Your task to perform on an android device: Search for "duracell triple a" on newegg.com, select the first entry, and add it to the cart. Image 0: 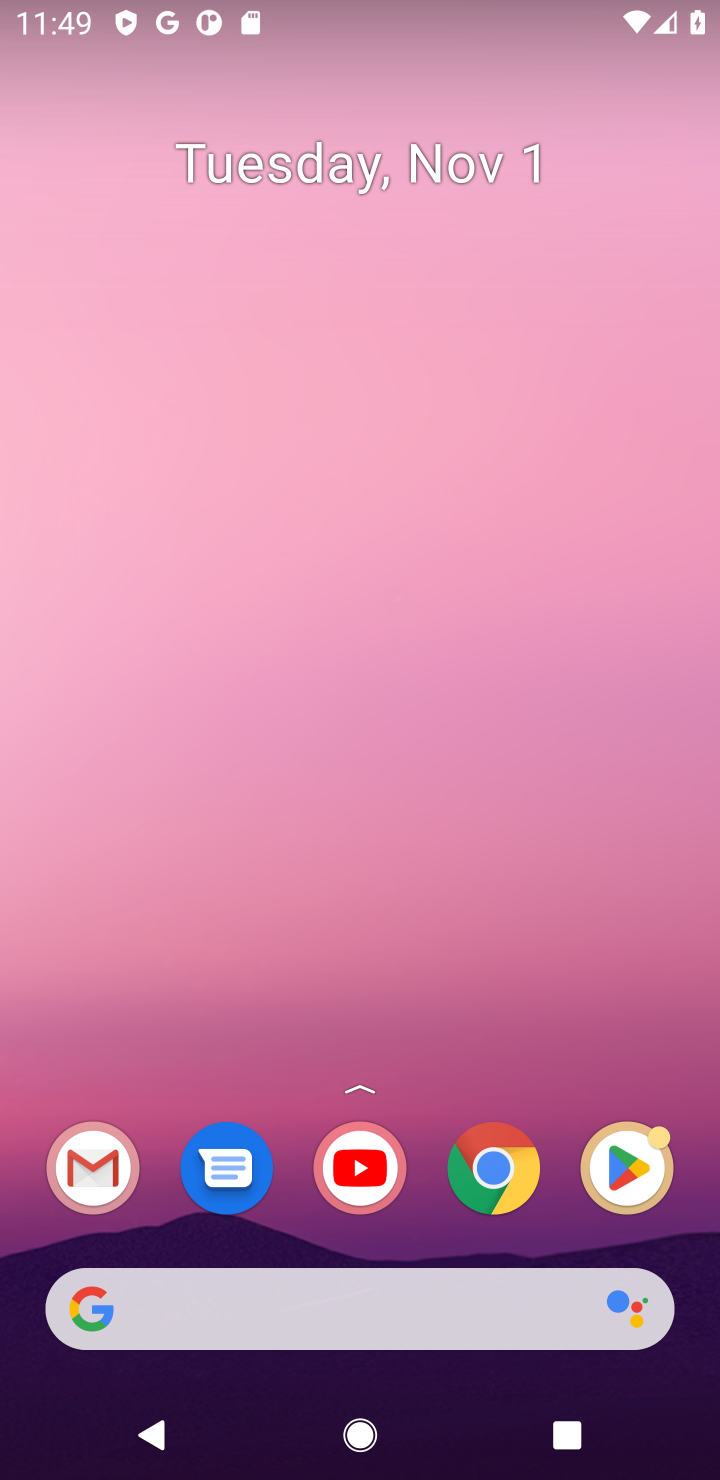
Step 0: click (499, 1181)
Your task to perform on an android device: Search for "duracell triple a" on newegg.com, select the first entry, and add it to the cart. Image 1: 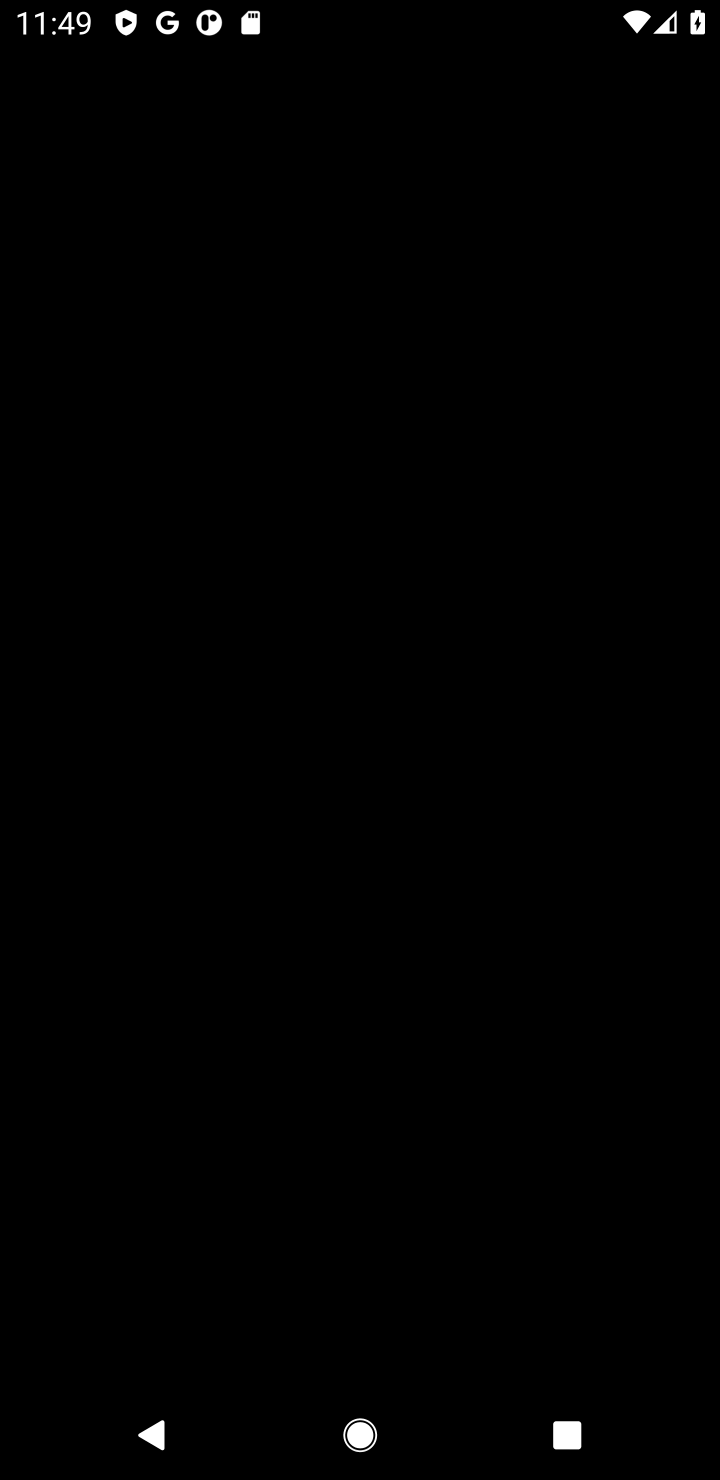
Step 1: press home button
Your task to perform on an android device: Search for "duracell triple a" on newegg.com, select the first entry, and add it to the cart. Image 2: 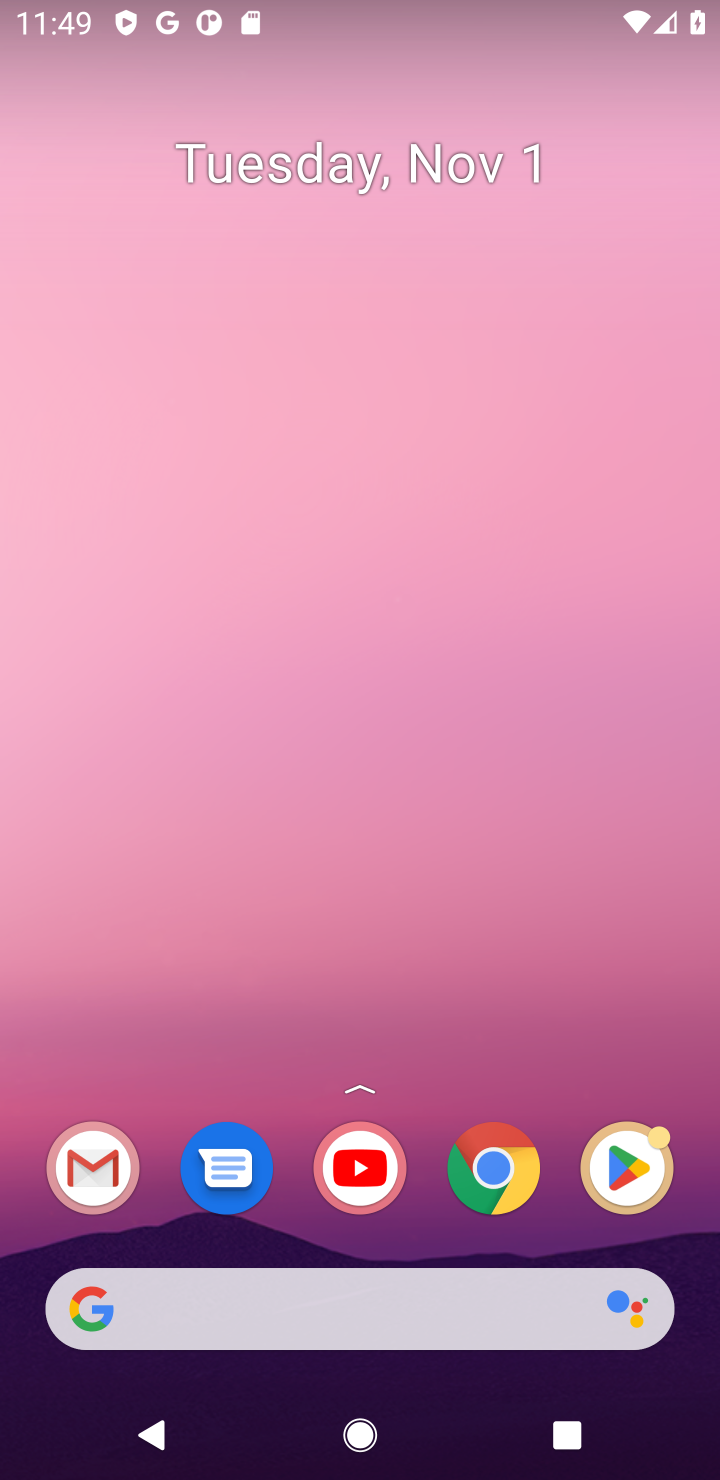
Step 2: click (496, 1175)
Your task to perform on an android device: Search for "duracell triple a" on newegg.com, select the first entry, and add it to the cart. Image 3: 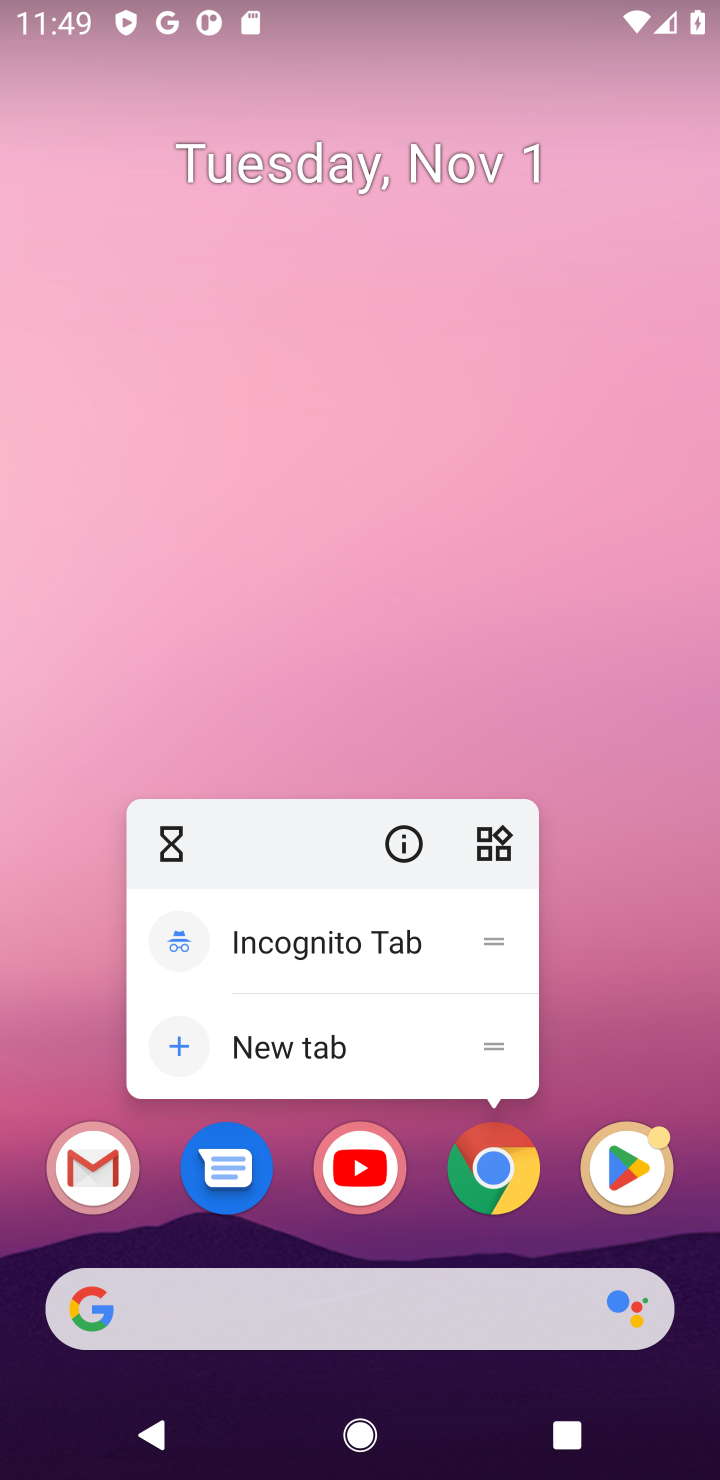
Step 3: click (500, 1167)
Your task to perform on an android device: Search for "duracell triple a" on newegg.com, select the first entry, and add it to the cart. Image 4: 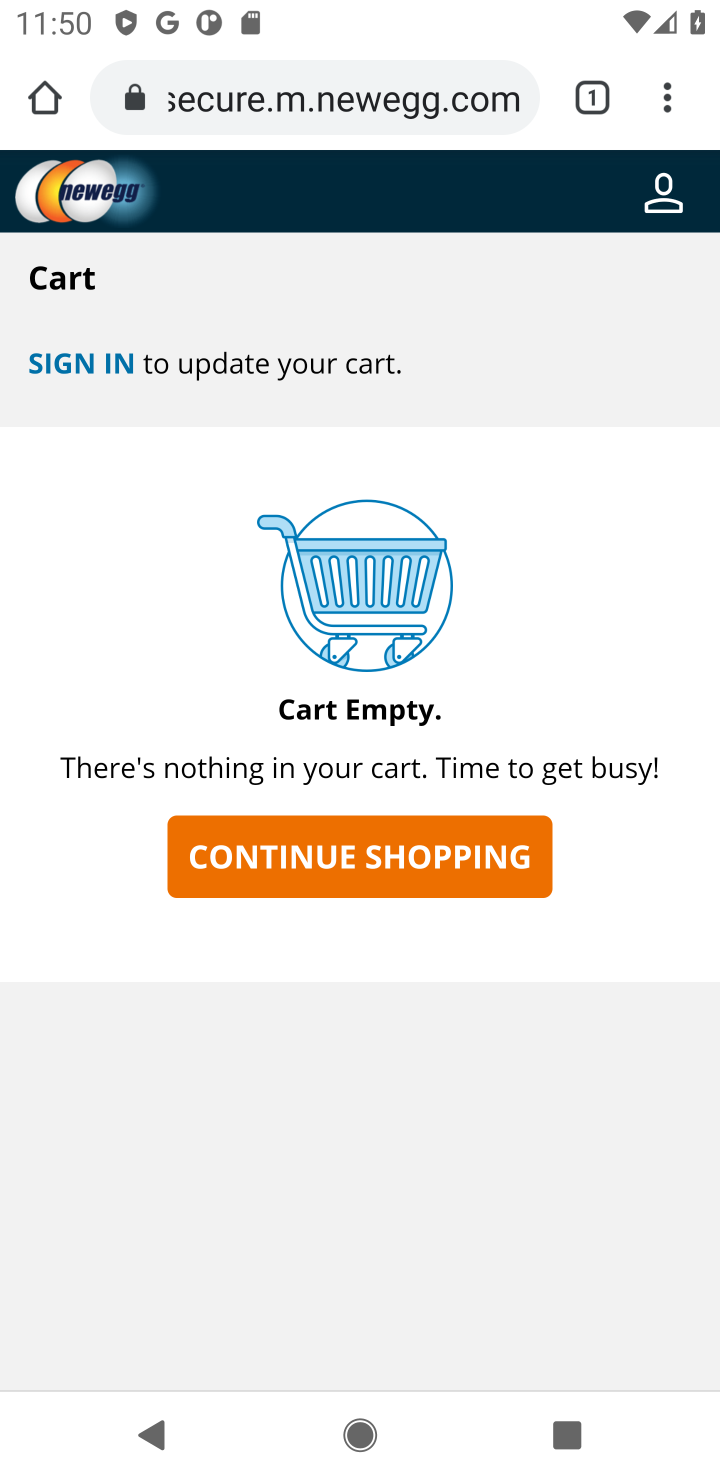
Step 4: click (338, 100)
Your task to perform on an android device: Search for "duracell triple a" on newegg.com, select the first entry, and add it to the cart. Image 5: 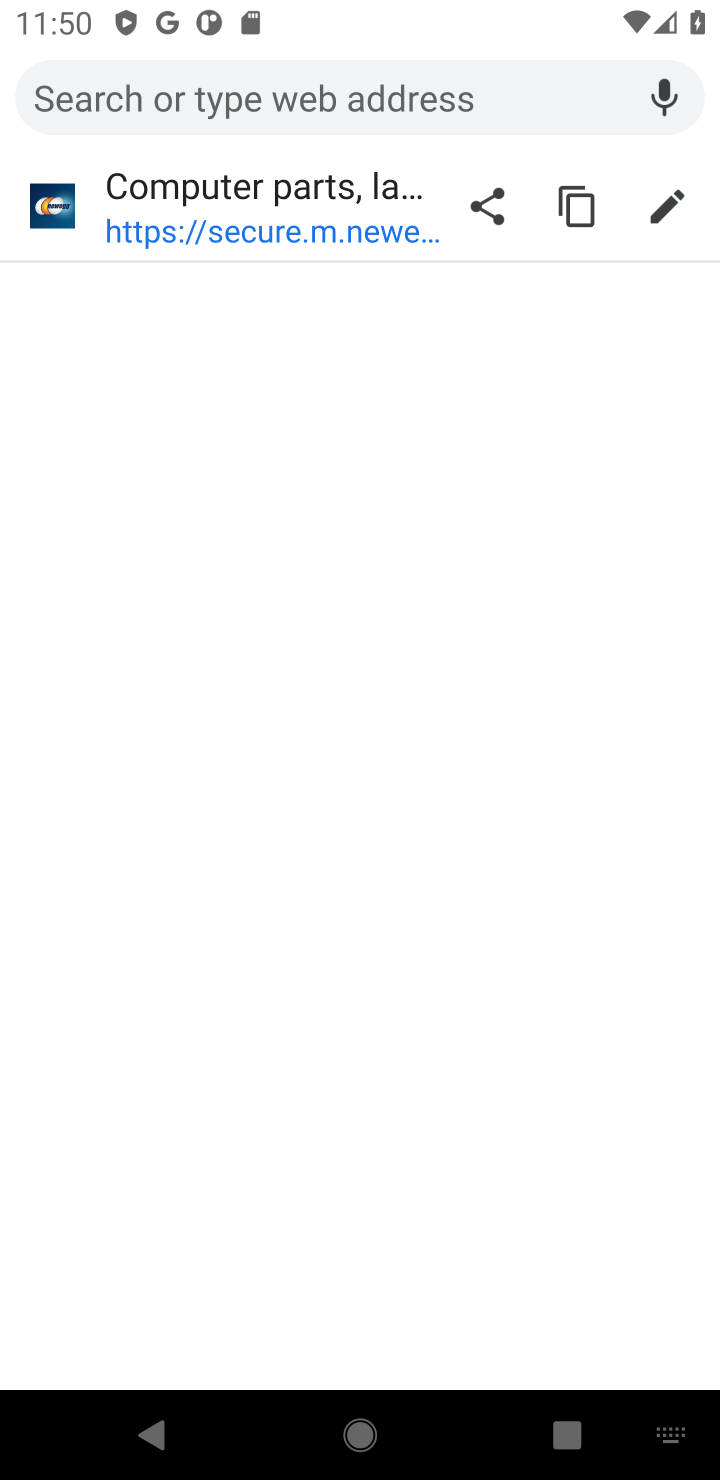
Step 5: type "newegg.com"
Your task to perform on an android device: Search for "duracell triple a" on newegg.com, select the first entry, and add it to the cart. Image 6: 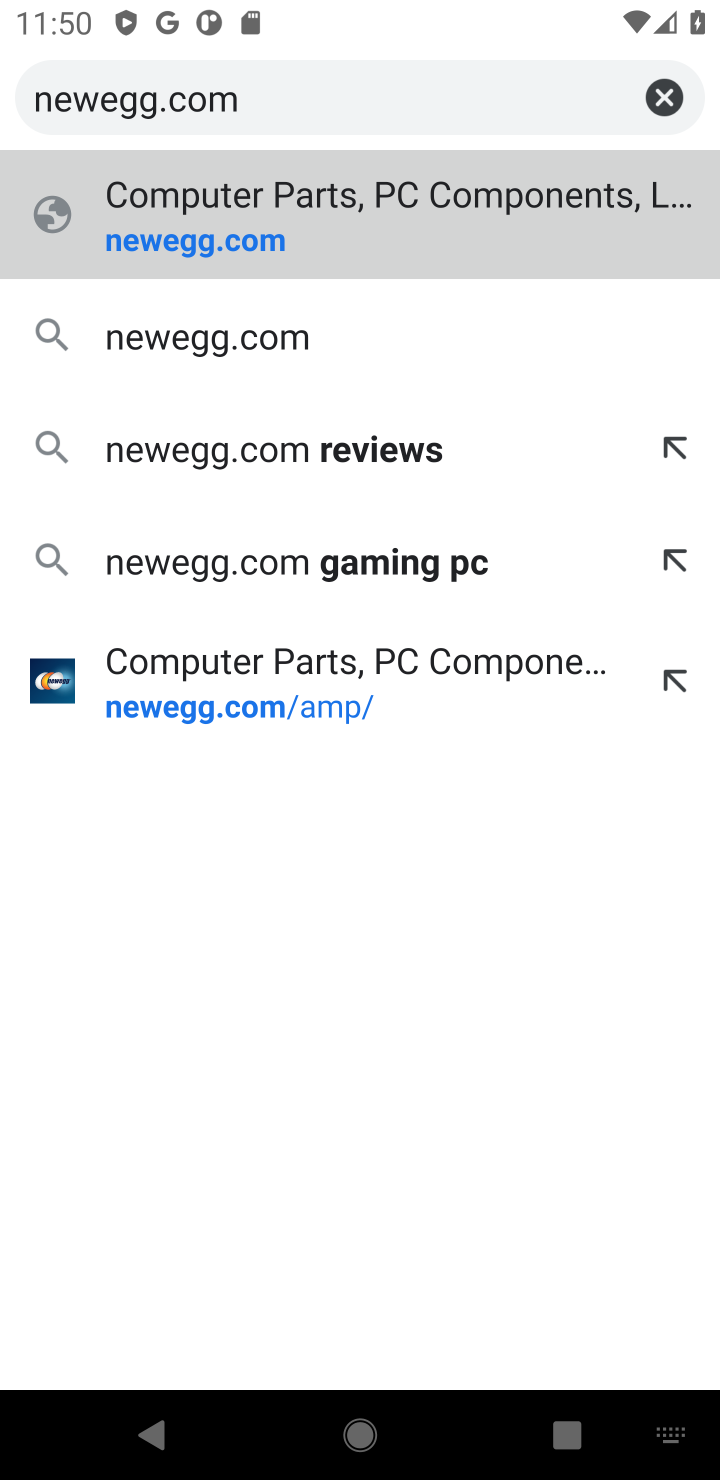
Step 6: click (287, 348)
Your task to perform on an android device: Search for "duracell triple a" on newegg.com, select the first entry, and add it to the cart. Image 7: 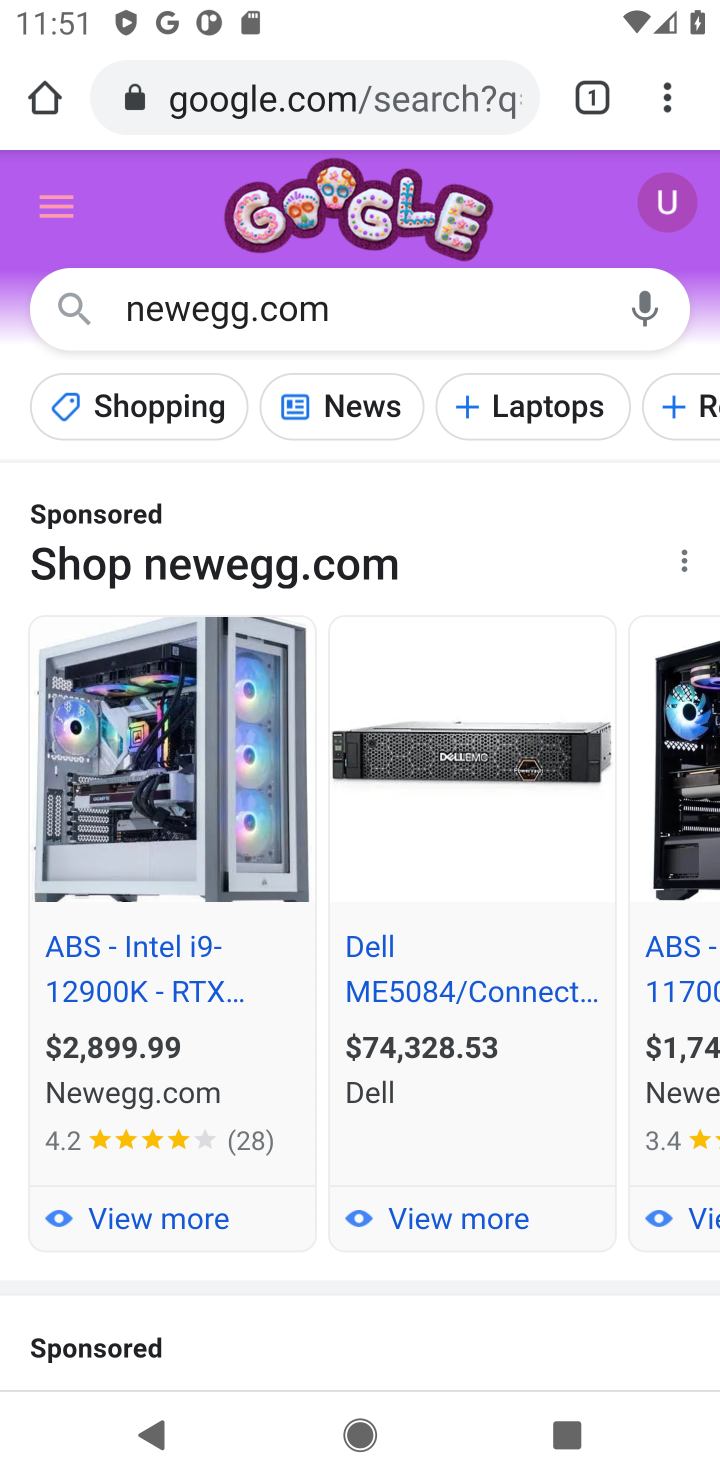
Step 7: drag from (449, 722) to (491, 481)
Your task to perform on an android device: Search for "duracell triple a" on newegg.com, select the first entry, and add it to the cart. Image 8: 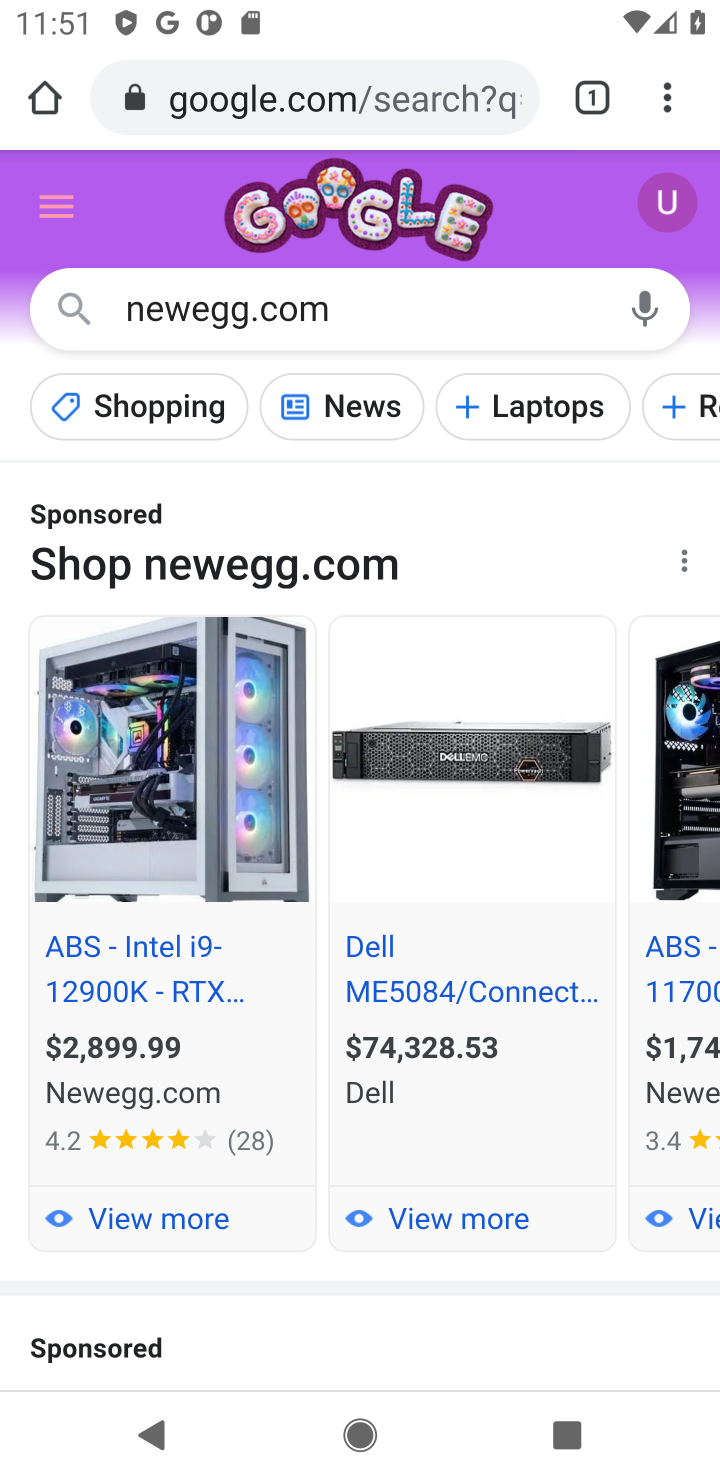
Step 8: drag from (434, 912) to (514, 214)
Your task to perform on an android device: Search for "duracell triple a" on newegg.com, select the first entry, and add it to the cart. Image 9: 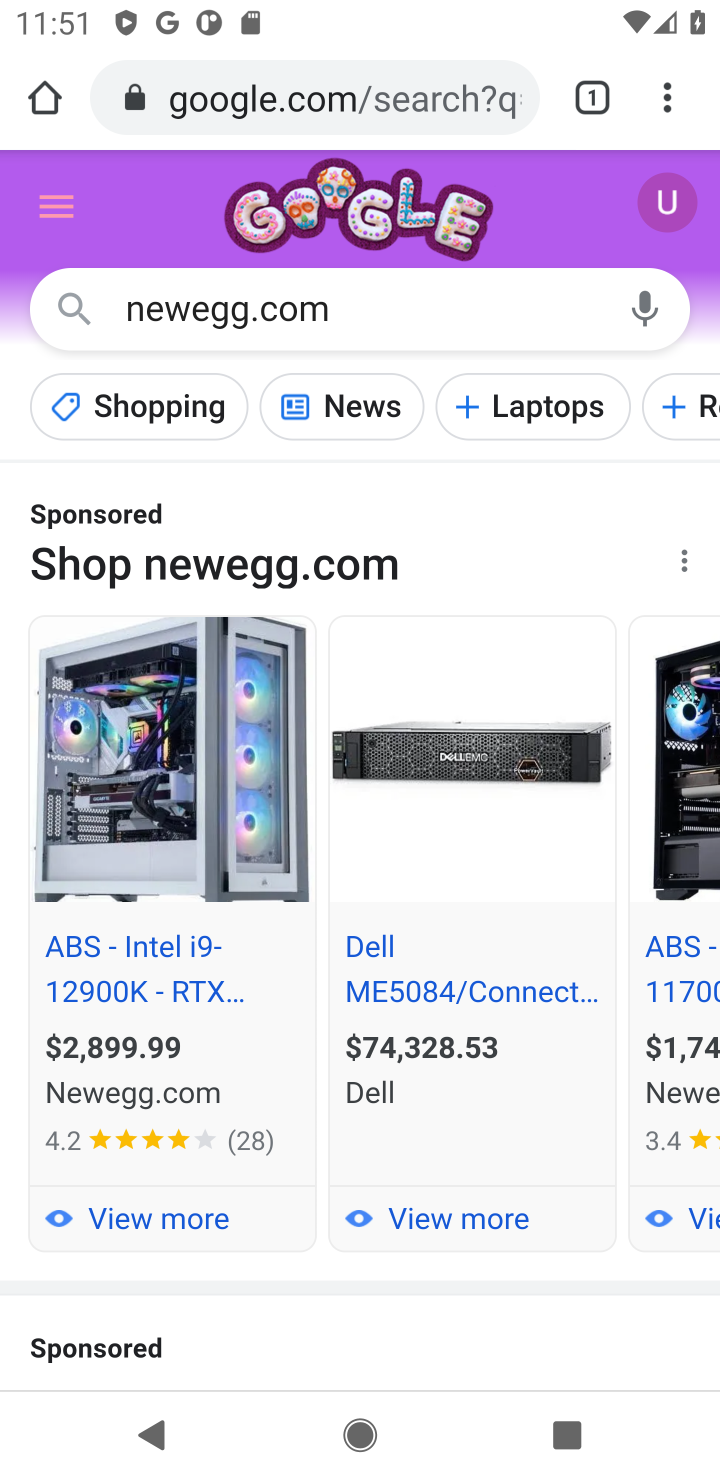
Step 9: drag from (378, 1358) to (527, 290)
Your task to perform on an android device: Search for "duracell triple a" on newegg.com, select the first entry, and add it to the cart. Image 10: 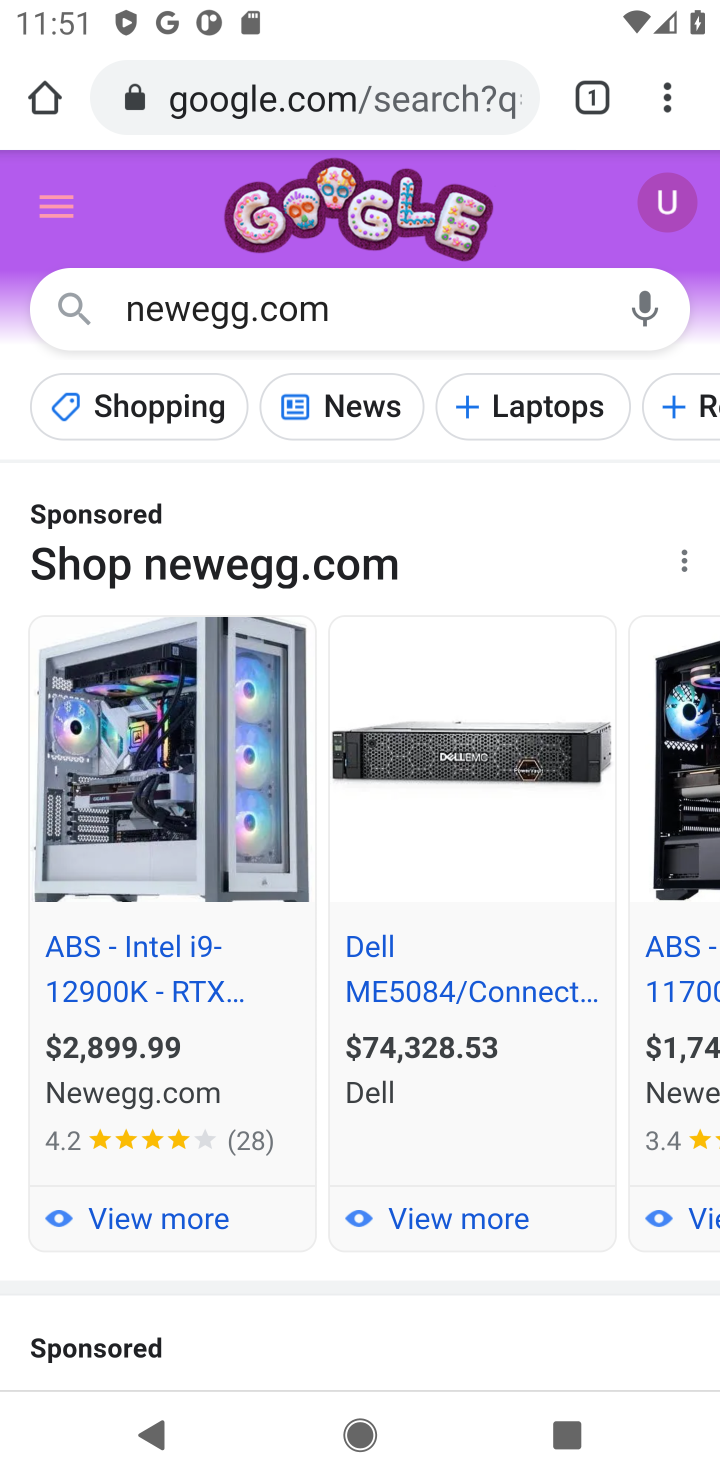
Step 10: drag from (338, 191) to (411, 1)
Your task to perform on an android device: Search for "duracell triple a" on newegg.com, select the first entry, and add it to the cart. Image 11: 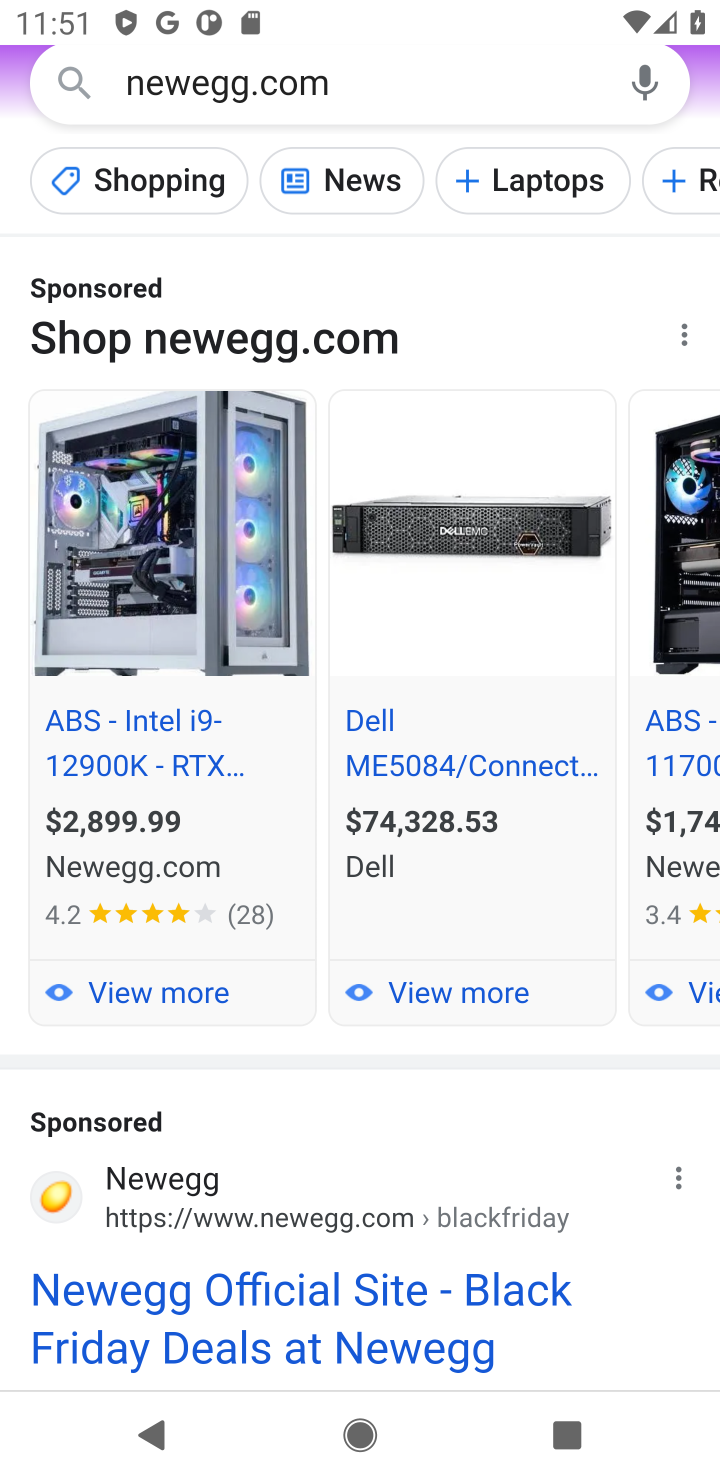
Step 11: drag from (588, 1252) to (533, 305)
Your task to perform on an android device: Search for "duracell triple a" on newegg.com, select the first entry, and add it to the cart. Image 12: 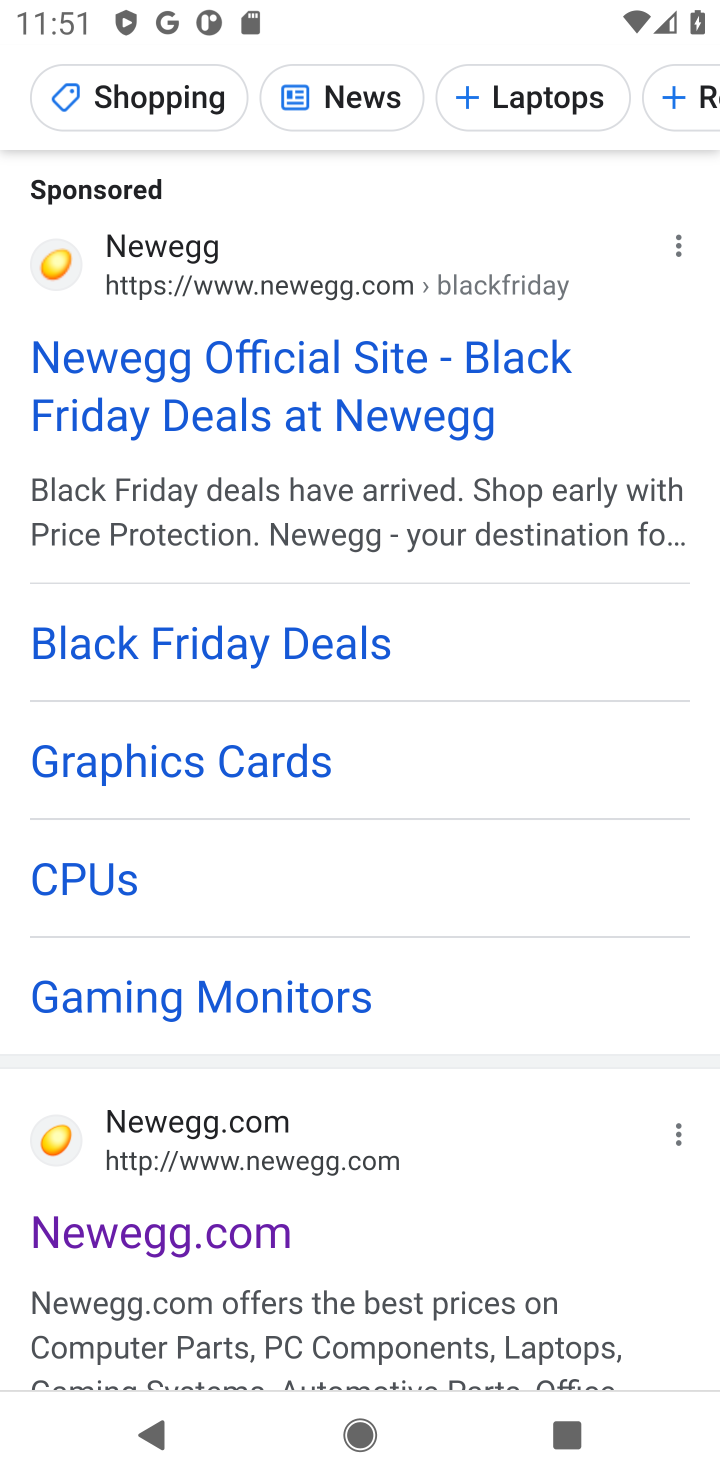
Step 12: click (225, 1234)
Your task to perform on an android device: Search for "duracell triple a" on newegg.com, select the first entry, and add it to the cart. Image 13: 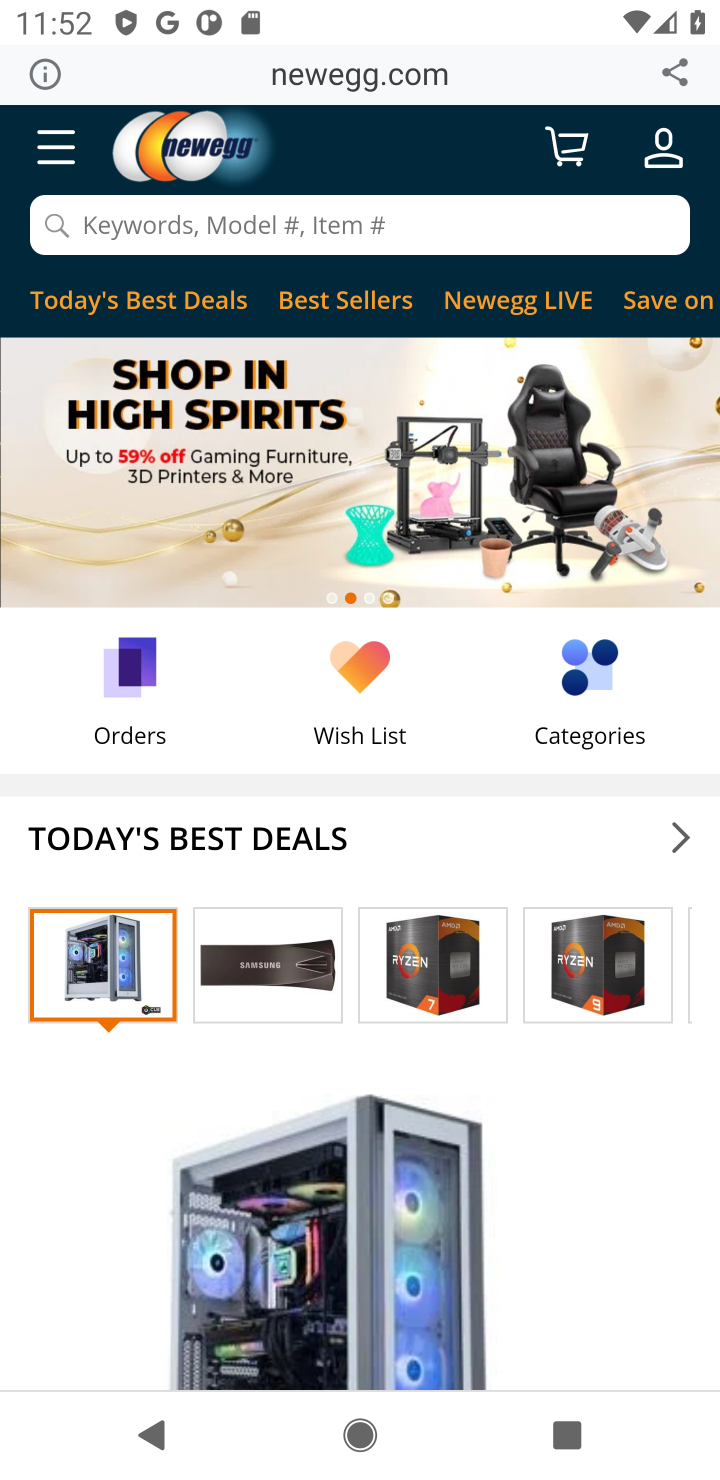
Step 13: click (388, 214)
Your task to perform on an android device: Search for "duracell triple a" on newegg.com, select the first entry, and add it to the cart. Image 14: 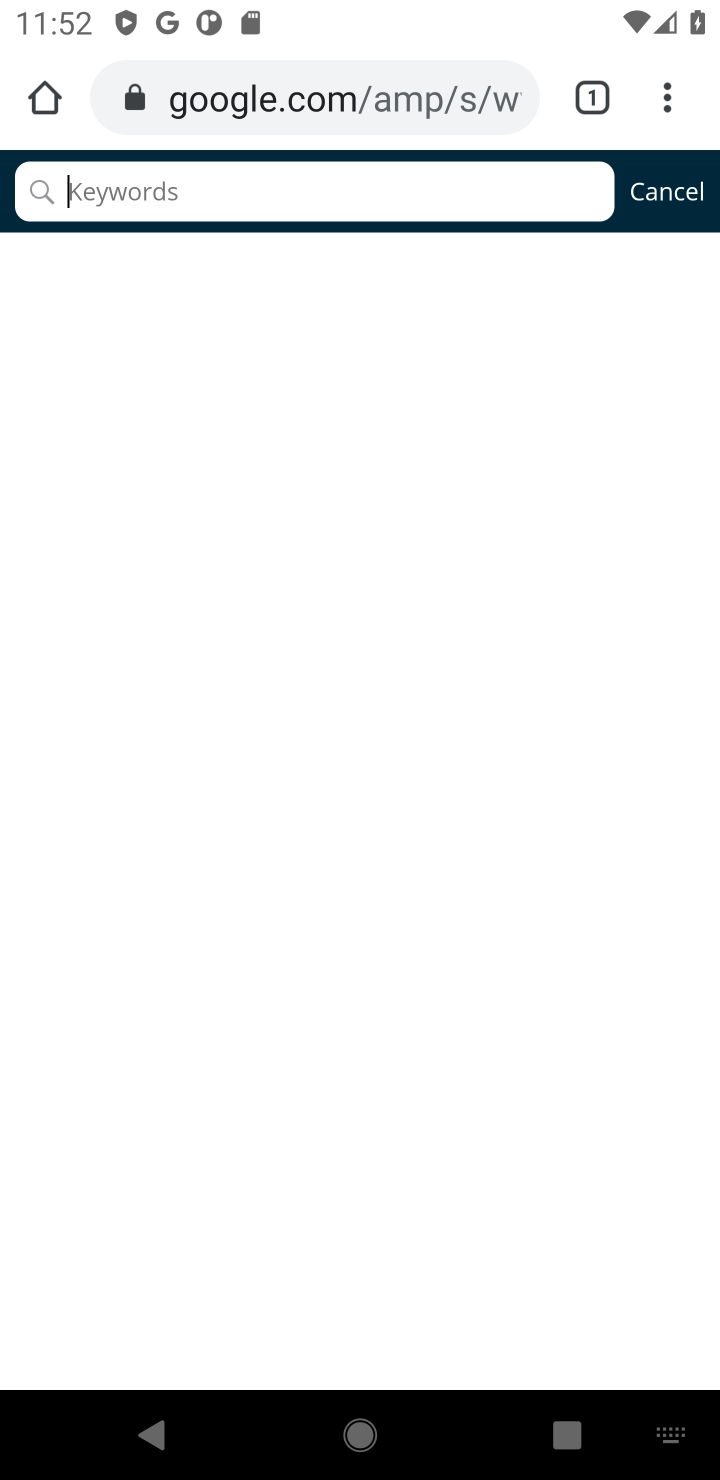
Step 14: type "duracell triple a"
Your task to perform on an android device: Search for "duracell triple a" on newegg.com, select the first entry, and add it to the cart. Image 15: 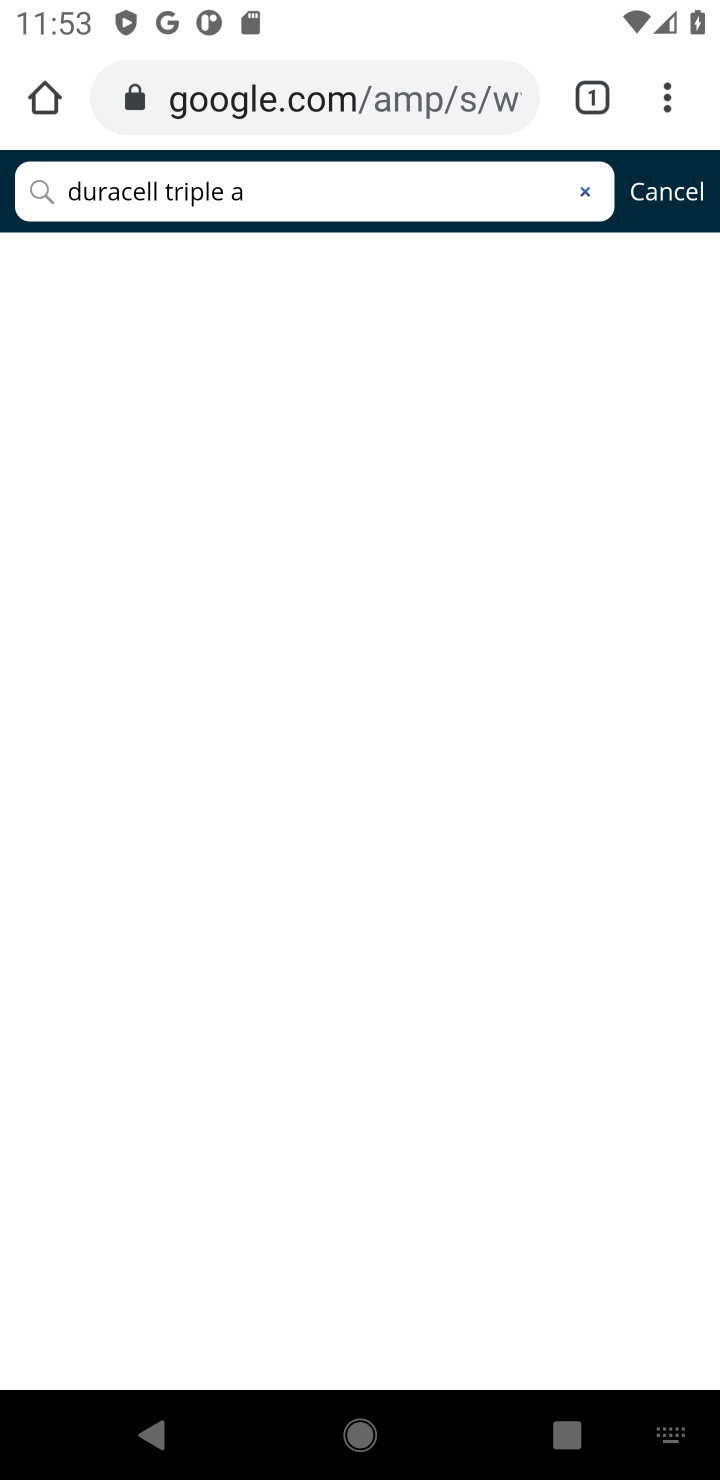
Step 15: task complete